Your task to perform on an android device: Open settings on Google Maps Image 0: 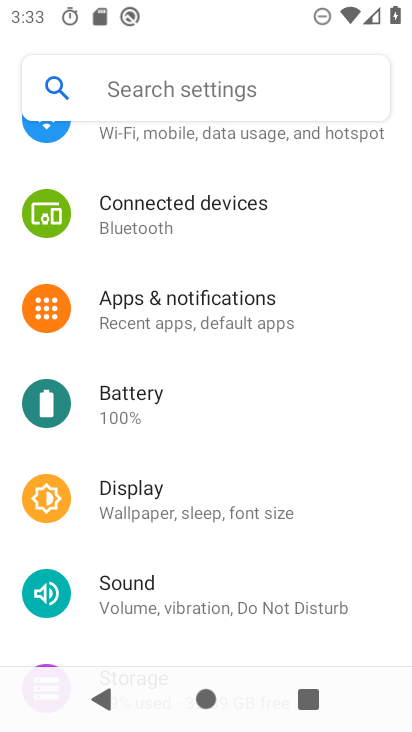
Step 0: drag from (352, 570) to (281, 116)
Your task to perform on an android device: Open settings on Google Maps Image 1: 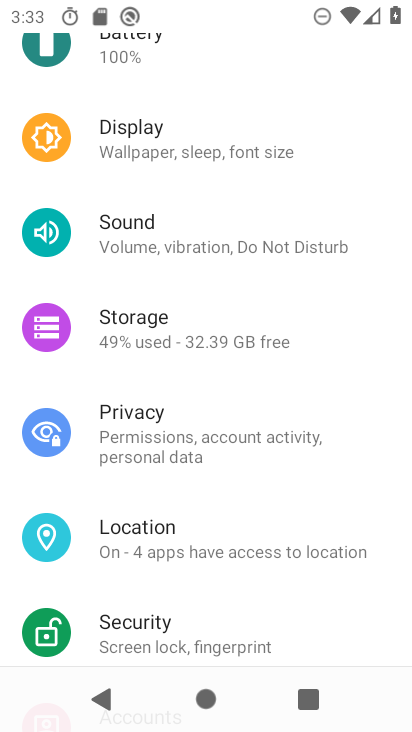
Step 1: drag from (241, 270) to (301, 564)
Your task to perform on an android device: Open settings on Google Maps Image 2: 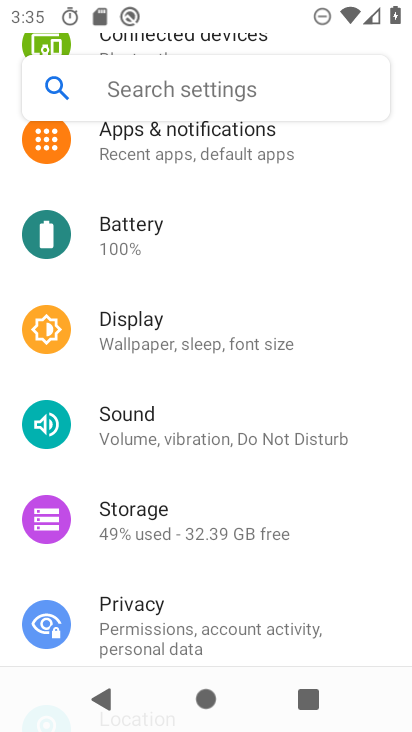
Step 2: press home button
Your task to perform on an android device: Open settings on Google Maps Image 3: 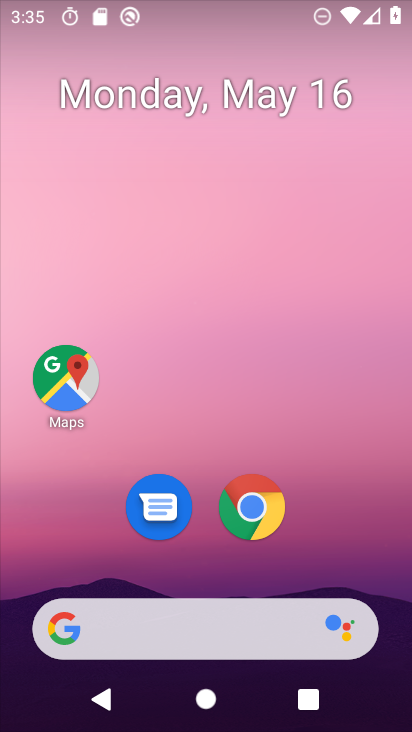
Step 3: click (67, 391)
Your task to perform on an android device: Open settings on Google Maps Image 4: 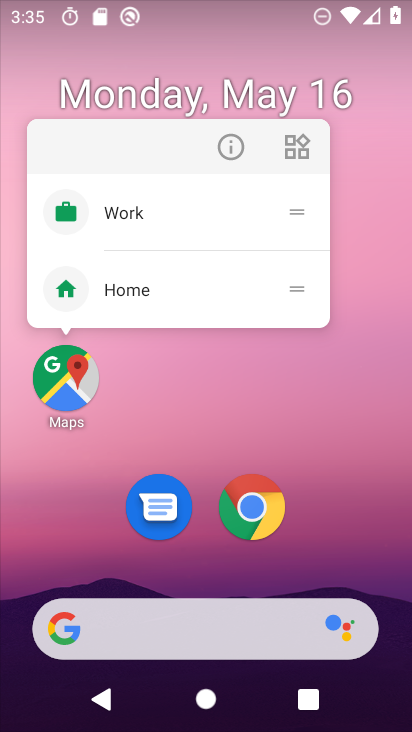
Step 4: click (74, 398)
Your task to perform on an android device: Open settings on Google Maps Image 5: 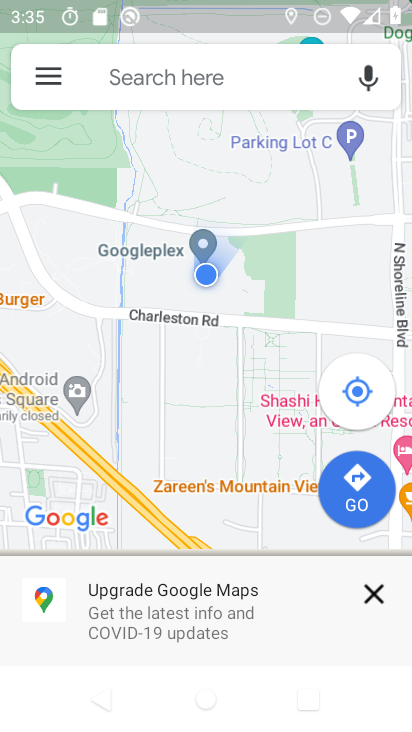
Step 5: click (30, 96)
Your task to perform on an android device: Open settings on Google Maps Image 6: 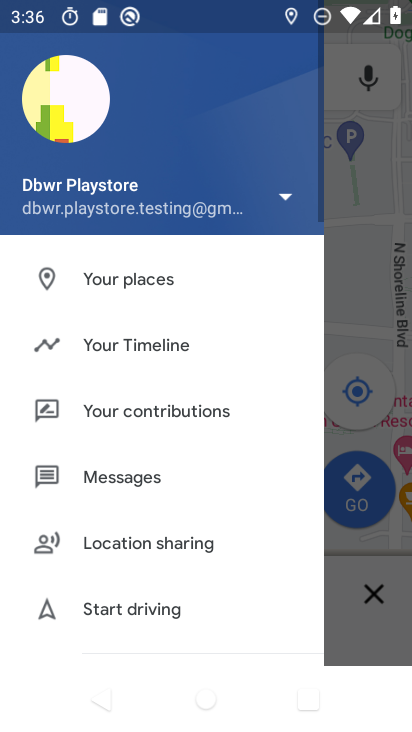
Step 6: drag from (108, 605) to (152, 228)
Your task to perform on an android device: Open settings on Google Maps Image 7: 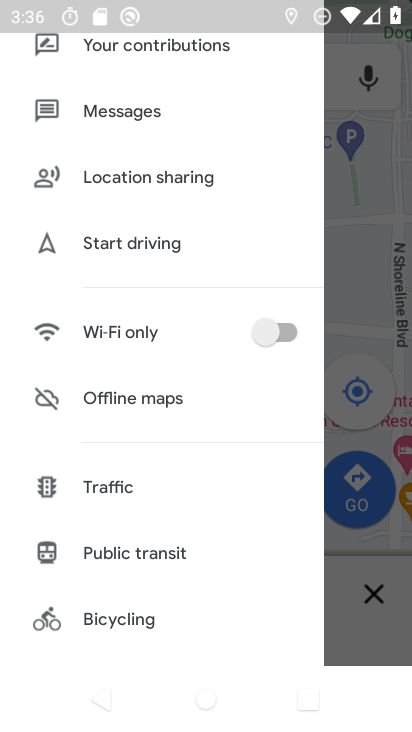
Step 7: drag from (133, 546) to (184, 182)
Your task to perform on an android device: Open settings on Google Maps Image 8: 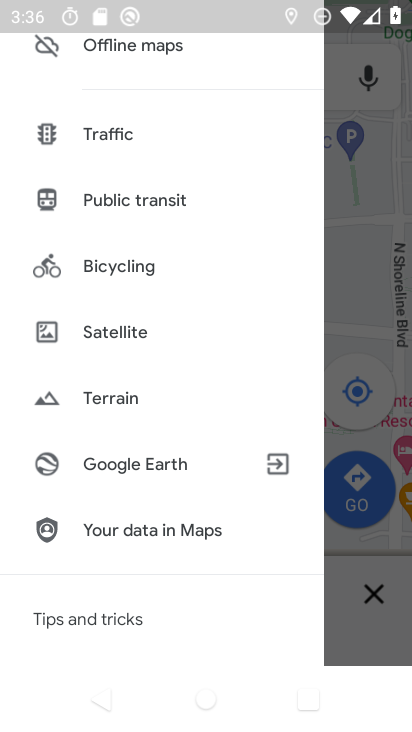
Step 8: drag from (140, 533) to (186, 142)
Your task to perform on an android device: Open settings on Google Maps Image 9: 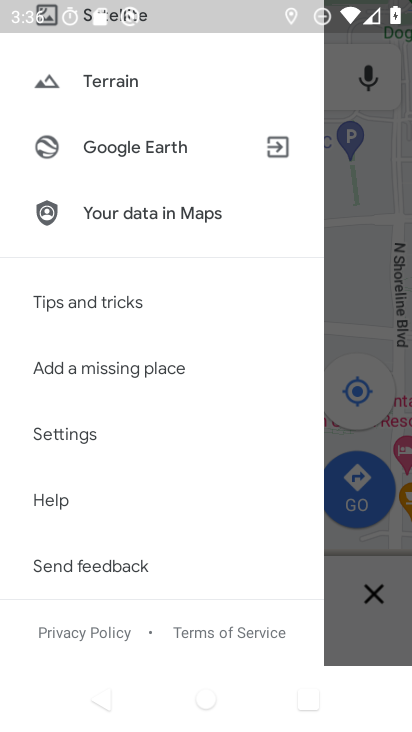
Step 9: click (63, 461)
Your task to perform on an android device: Open settings on Google Maps Image 10: 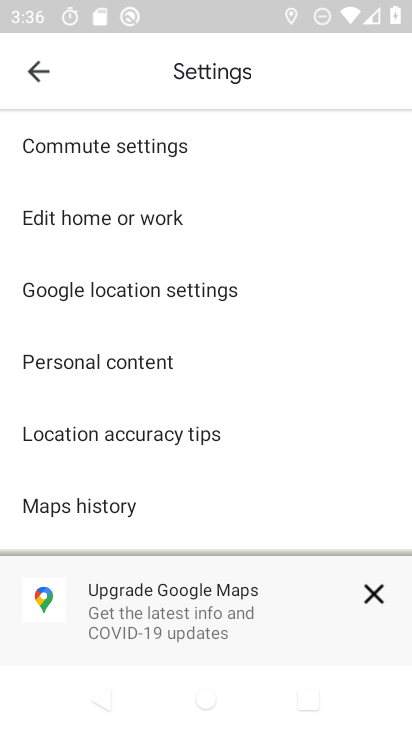
Step 10: task complete